Your task to perform on an android device: turn on the 12-hour format for clock Image 0: 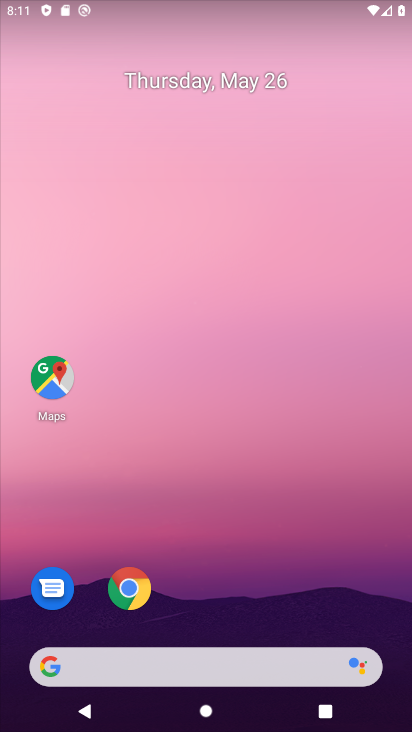
Step 0: drag from (384, 607) to (338, 137)
Your task to perform on an android device: turn on the 12-hour format for clock Image 1: 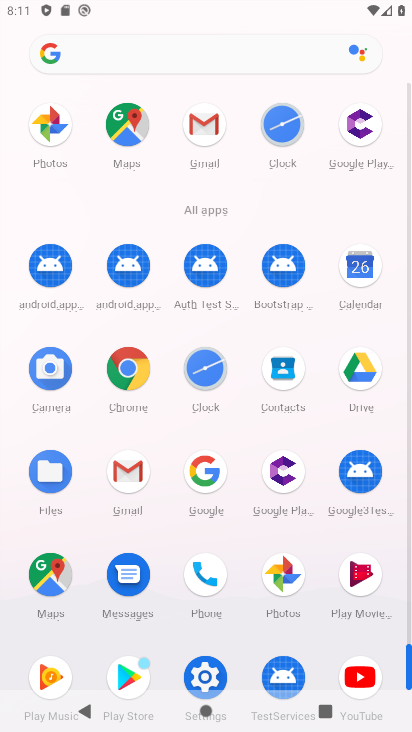
Step 1: click (204, 367)
Your task to perform on an android device: turn on the 12-hour format for clock Image 2: 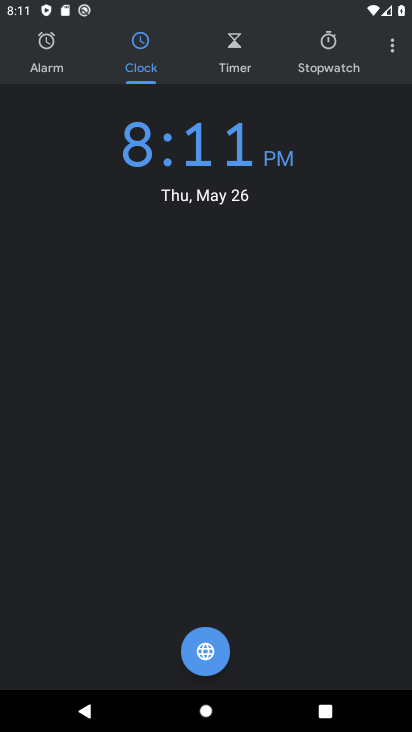
Step 2: click (391, 52)
Your task to perform on an android device: turn on the 12-hour format for clock Image 3: 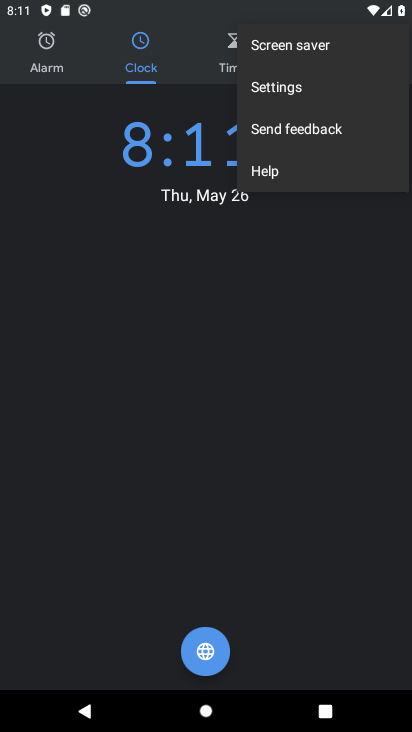
Step 3: click (290, 84)
Your task to perform on an android device: turn on the 12-hour format for clock Image 4: 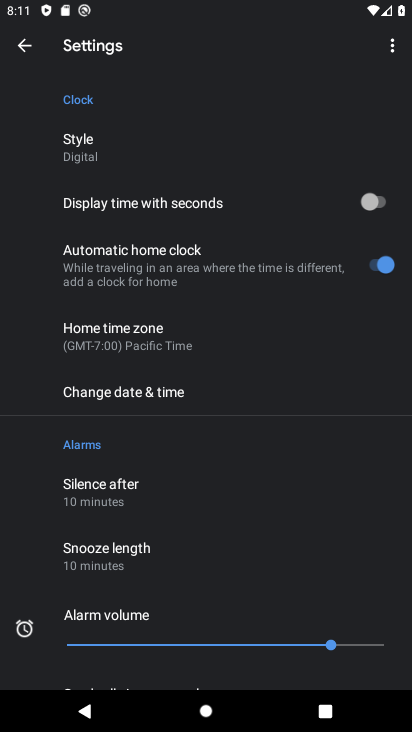
Step 4: click (155, 388)
Your task to perform on an android device: turn on the 12-hour format for clock Image 5: 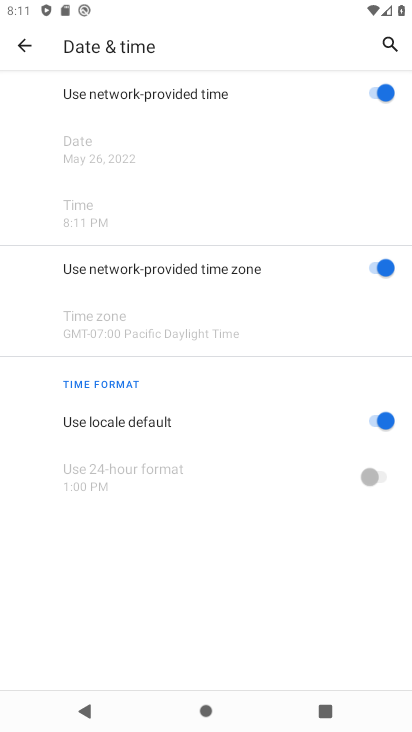
Step 5: task complete